Your task to perform on an android device: Go to internet settings Image 0: 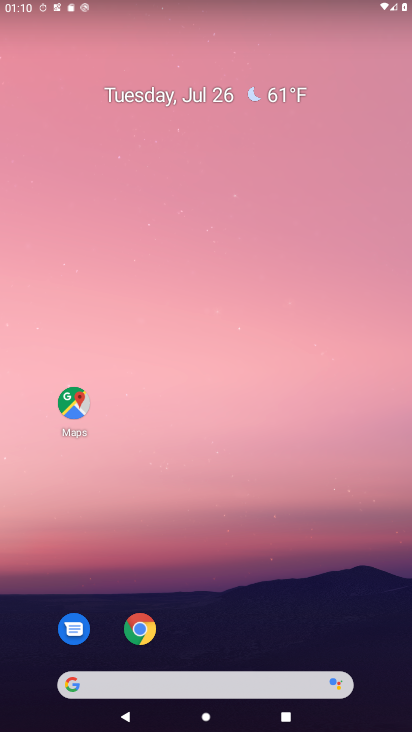
Step 0: drag from (227, 639) to (237, 214)
Your task to perform on an android device: Go to internet settings Image 1: 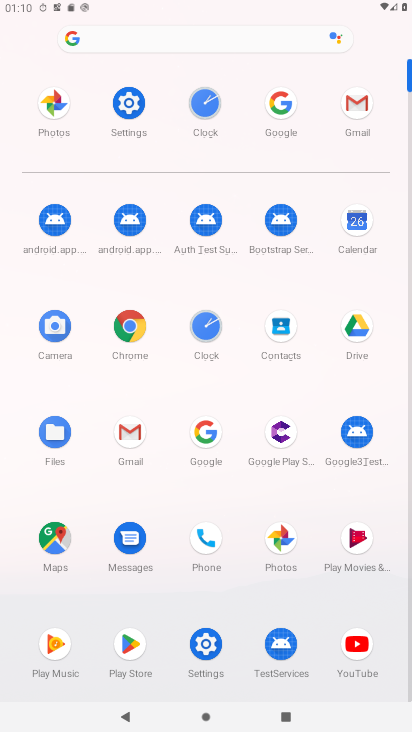
Step 1: click (134, 97)
Your task to perform on an android device: Go to internet settings Image 2: 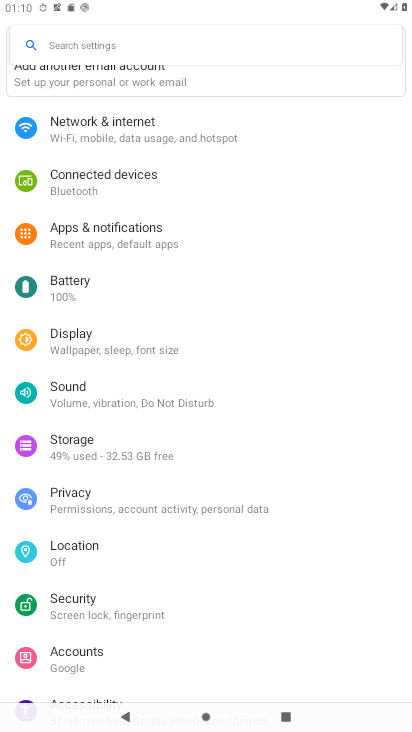
Step 2: click (156, 123)
Your task to perform on an android device: Go to internet settings Image 3: 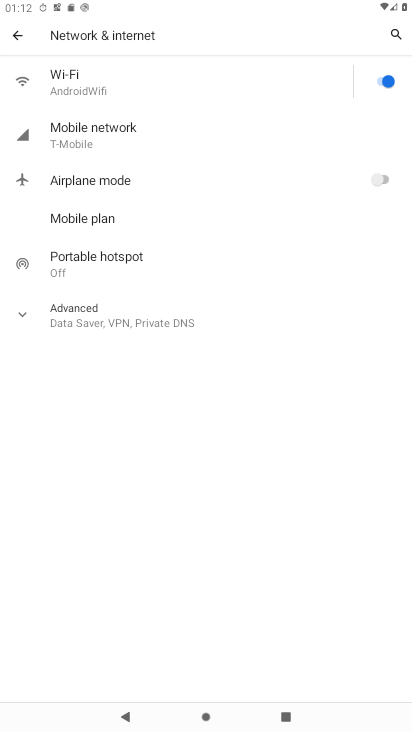
Step 3: task complete